Your task to perform on an android device: turn off improve location accuracy Image 0: 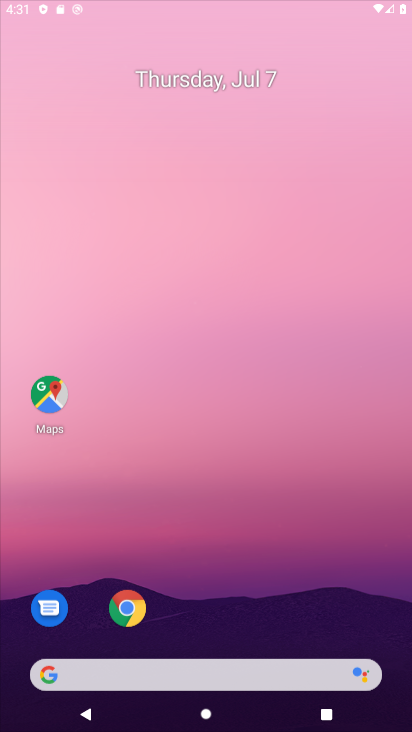
Step 0: press home button
Your task to perform on an android device: turn off improve location accuracy Image 1: 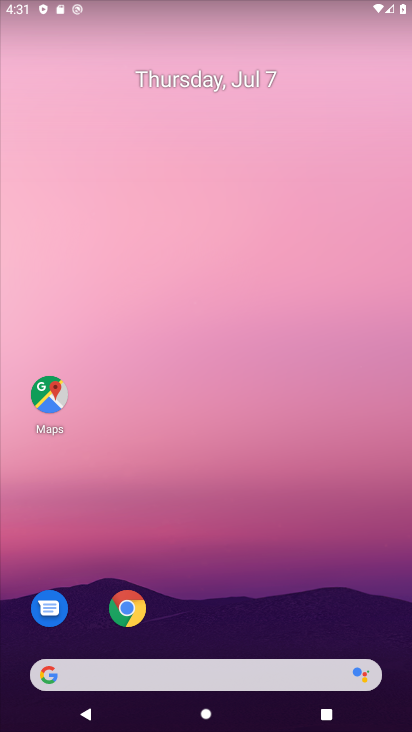
Step 1: click (38, 393)
Your task to perform on an android device: turn off improve location accuracy Image 2: 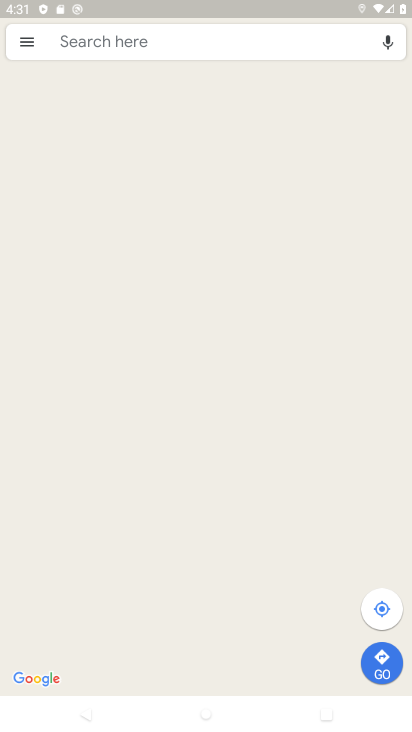
Step 2: click (33, 31)
Your task to perform on an android device: turn off improve location accuracy Image 3: 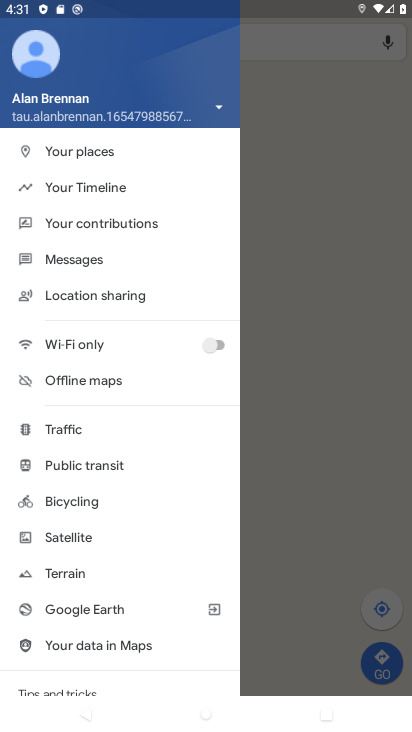
Step 3: drag from (118, 615) to (116, 216)
Your task to perform on an android device: turn off improve location accuracy Image 4: 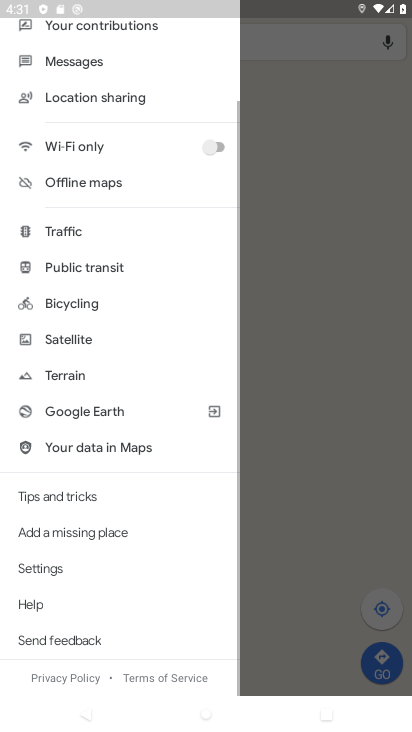
Step 4: click (55, 568)
Your task to perform on an android device: turn off improve location accuracy Image 5: 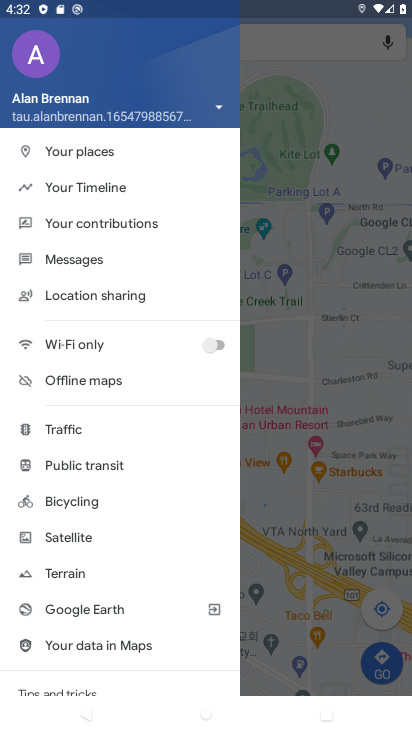
Step 5: drag from (94, 612) to (105, 200)
Your task to perform on an android device: turn off improve location accuracy Image 6: 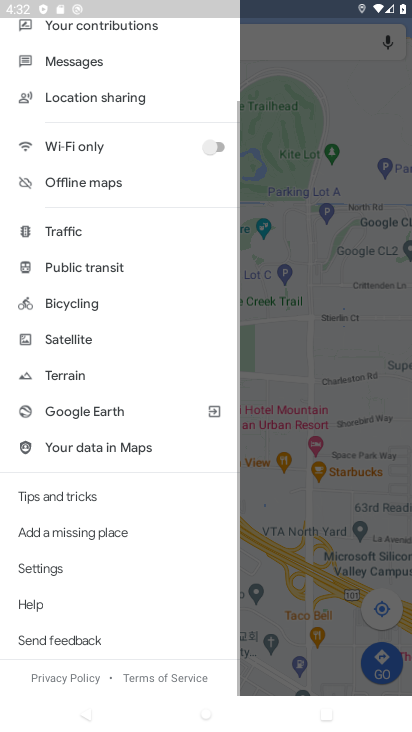
Step 6: click (63, 561)
Your task to perform on an android device: turn off improve location accuracy Image 7: 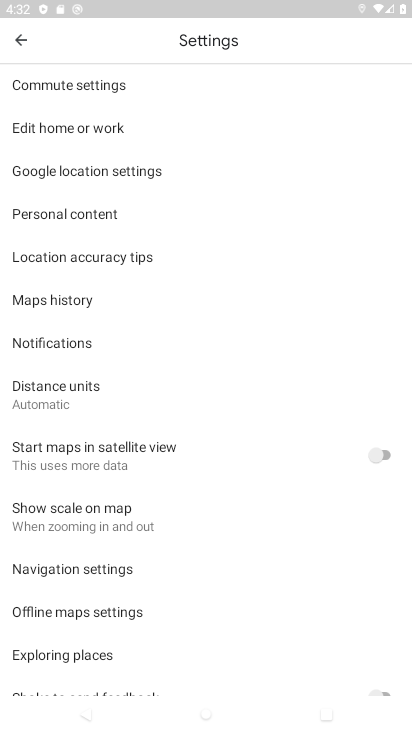
Step 7: click (113, 169)
Your task to perform on an android device: turn off improve location accuracy Image 8: 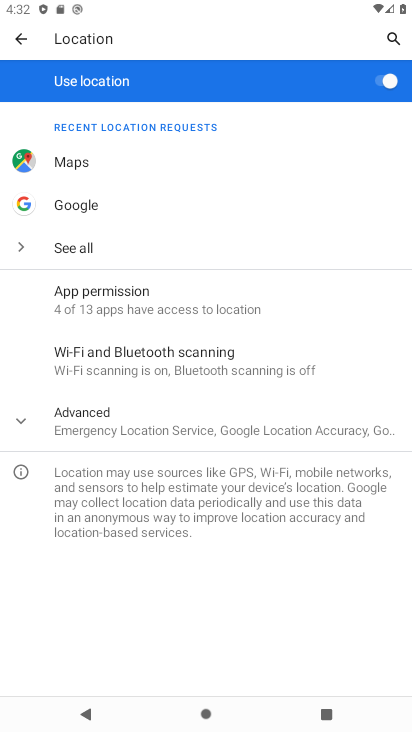
Step 8: click (107, 415)
Your task to perform on an android device: turn off improve location accuracy Image 9: 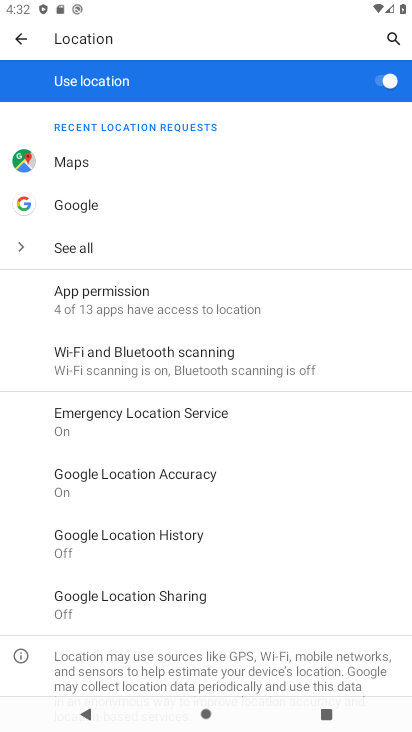
Step 9: click (164, 486)
Your task to perform on an android device: turn off improve location accuracy Image 10: 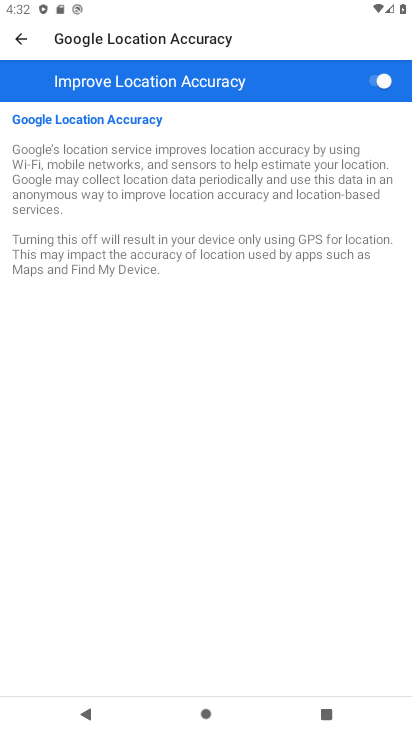
Step 10: click (374, 77)
Your task to perform on an android device: turn off improve location accuracy Image 11: 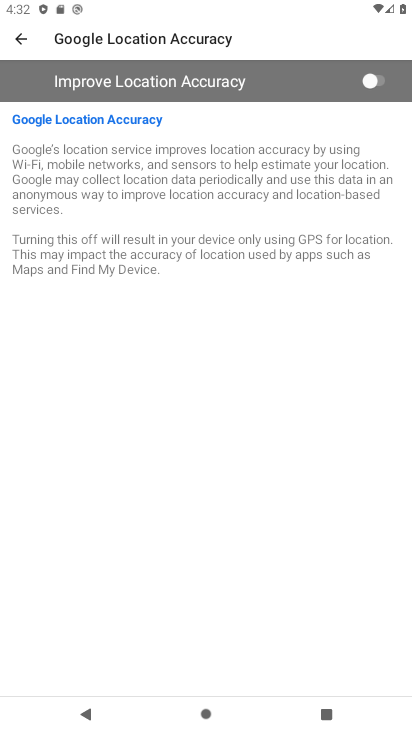
Step 11: task complete